Your task to perform on an android device: install app "Google Translate" Image 0: 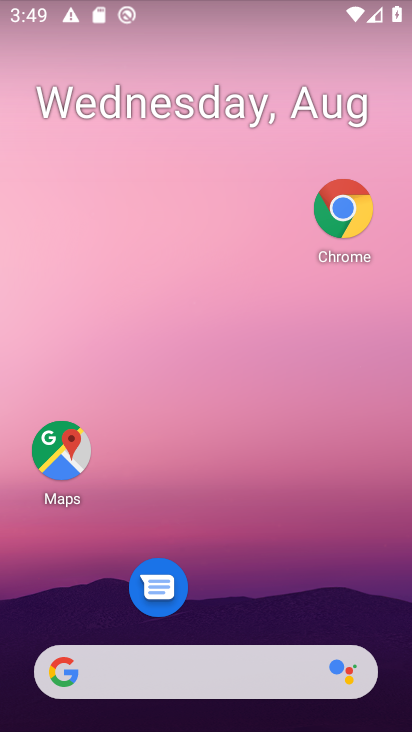
Step 0: press home button
Your task to perform on an android device: install app "Google Translate" Image 1: 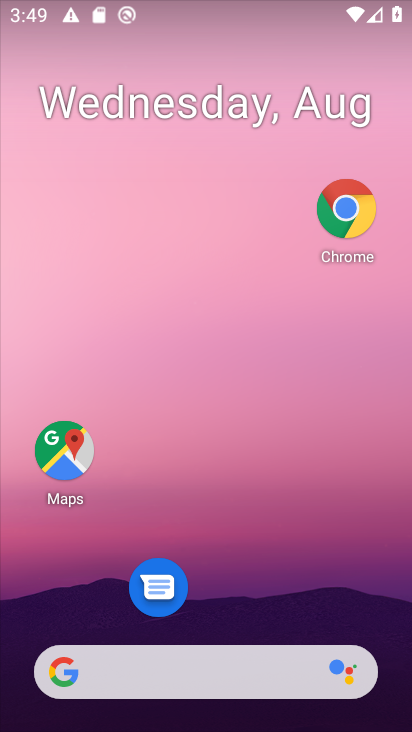
Step 1: drag from (221, 610) to (244, 91)
Your task to perform on an android device: install app "Google Translate" Image 2: 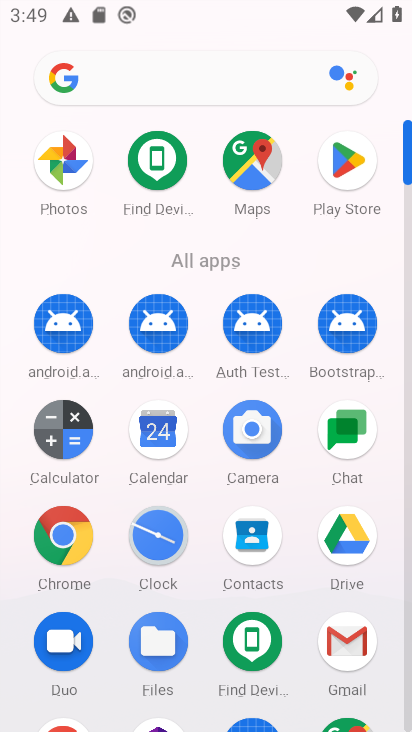
Step 2: click (343, 160)
Your task to perform on an android device: install app "Google Translate" Image 3: 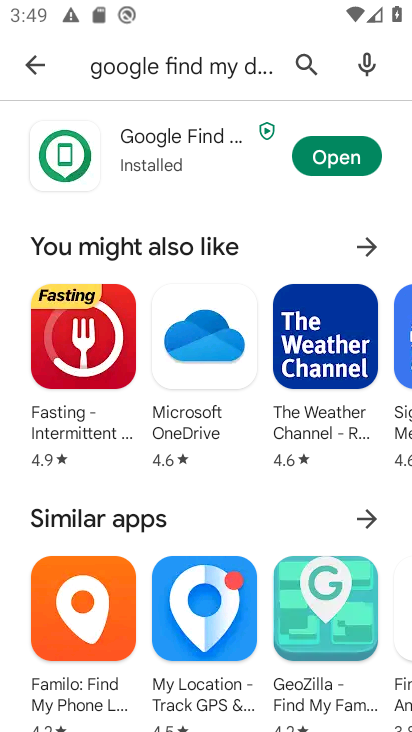
Step 3: click (299, 65)
Your task to perform on an android device: install app "Google Translate" Image 4: 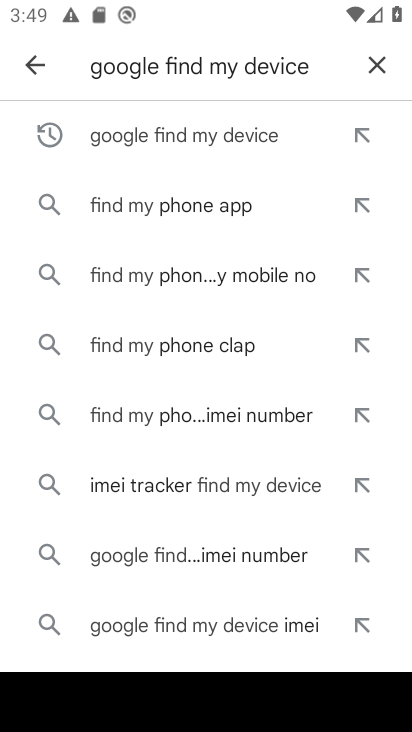
Step 4: click (376, 68)
Your task to perform on an android device: install app "Google Translate" Image 5: 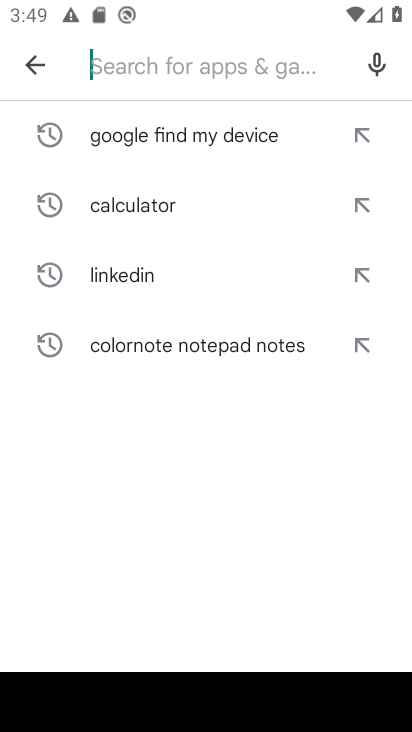
Step 5: type "Google Translate"
Your task to perform on an android device: install app "Google Translate" Image 6: 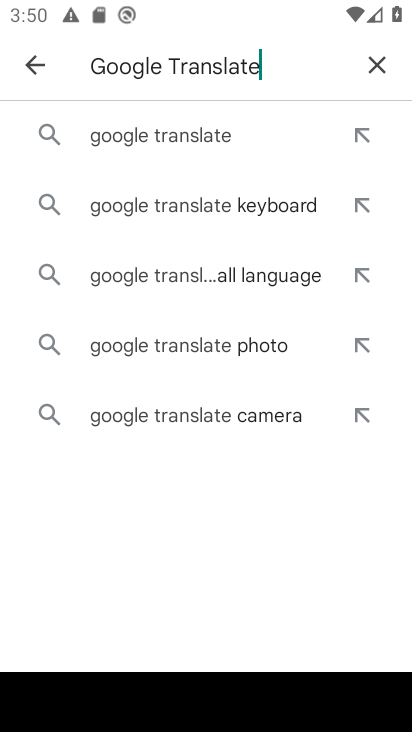
Step 6: click (244, 133)
Your task to perform on an android device: install app "Google Translate" Image 7: 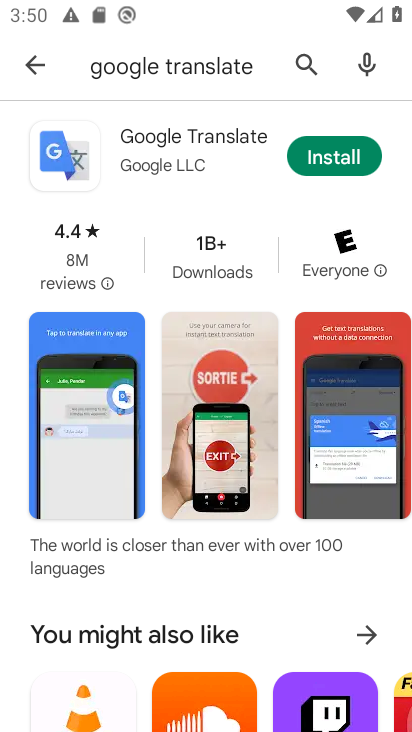
Step 7: click (336, 156)
Your task to perform on an android device: install app "Google Translate" Image 8: 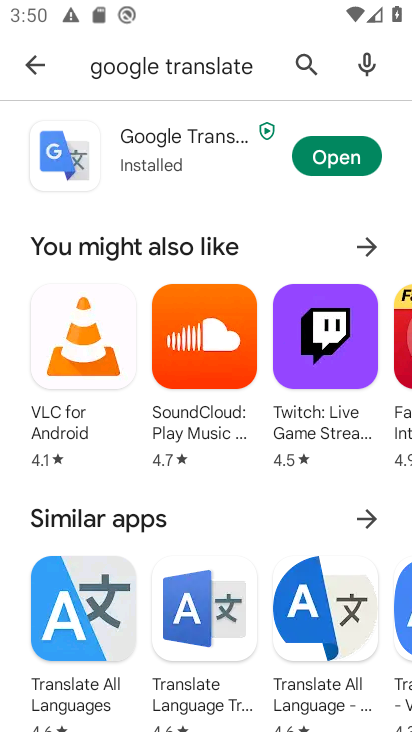
Step 8: click (341, 156)
Your task to perform on an android device: install app "Google Translate" Image 9: 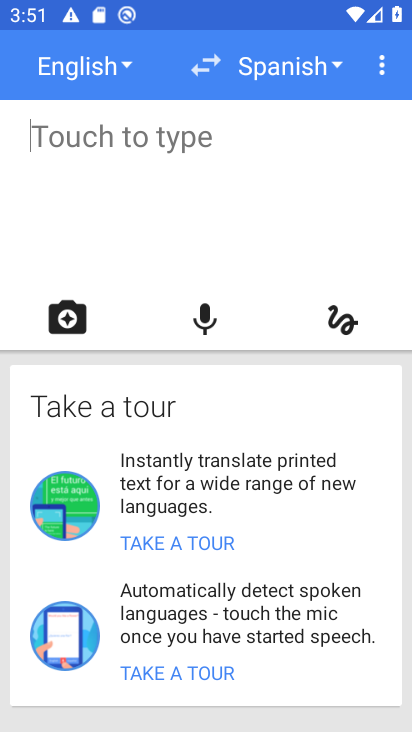
Step 9: task complete